Your task to perform on an android device: Go to calendar. Show me events next week Image 0: 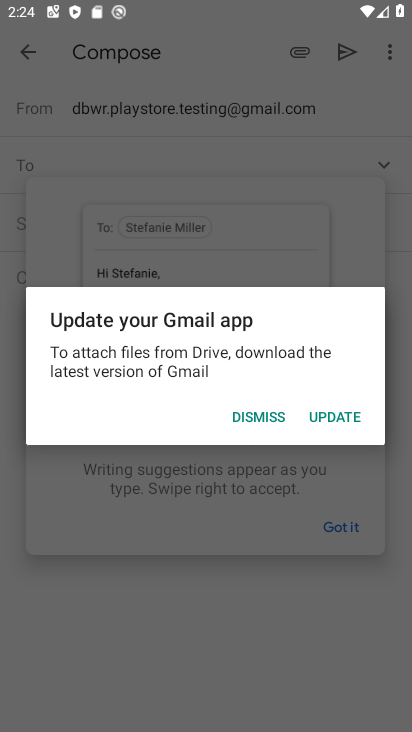
Step 0: press home button
Your task to perform on an android device: Go to calendar. Show me events next week Image 1: 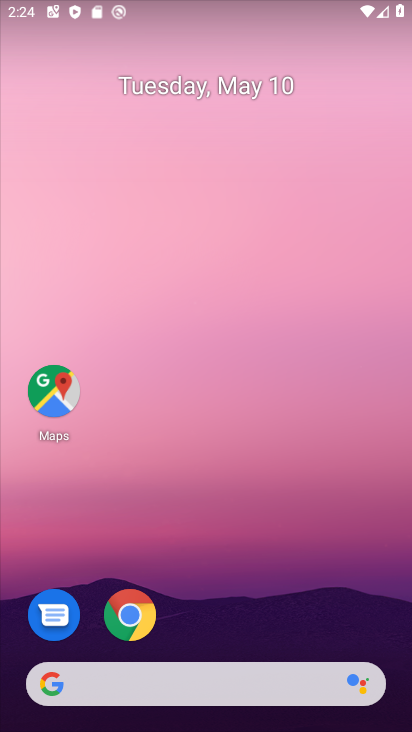
Step 1: drag from (255, 602) to (302, 180)
Your task to perform on an android device: Go to calendar. Show me events next week Image 2: 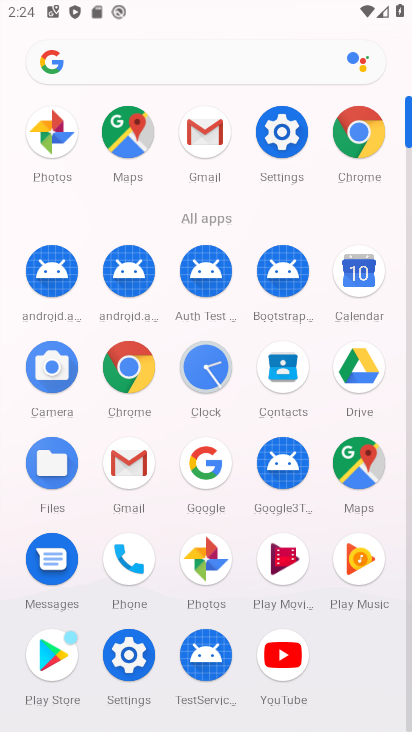
Step 2: click (352, 261)
Your task to perform on an android device: Go to calendar. Show me events next week Image 3: 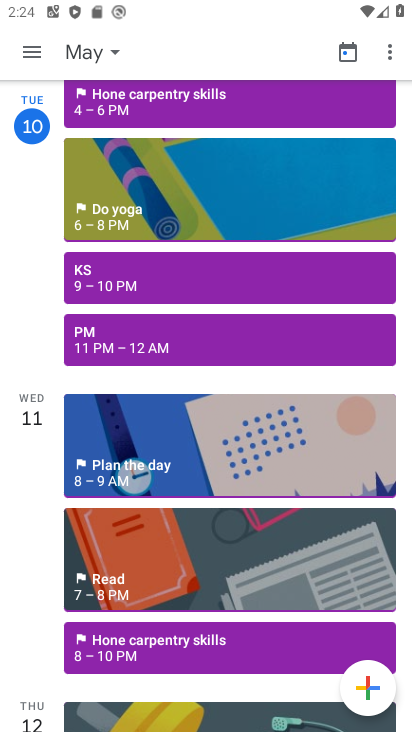
Step 3: click (25, 51)
Your task to perform on an android device: Go to calendar. Show me events next week Image 4: 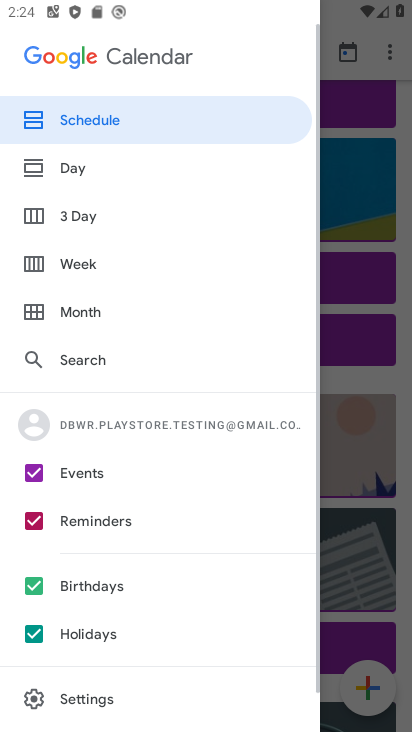
Step 4: click (73, 121)
Your task to perform on an android device: Go to calendar. Show me events next week Image 5: 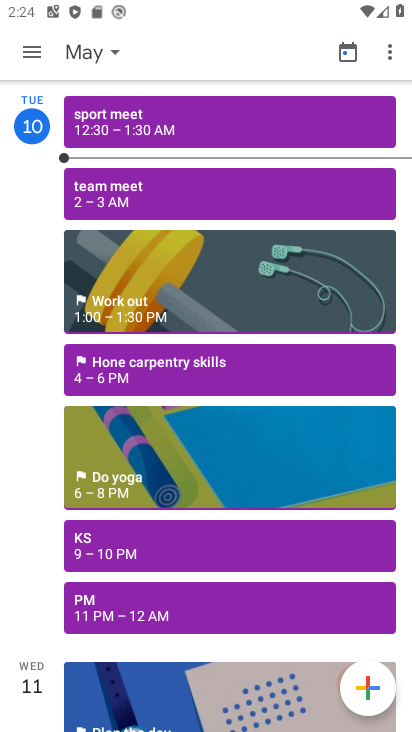
Step 5: task complete